Your task to perform on an android device: Search for vegetarian restaurants on Maps Image 0: 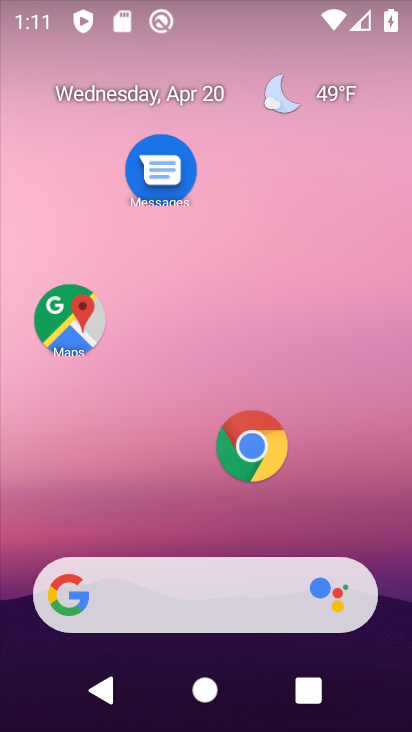
Step 0: click (180, 51)
Your task to perform on an android device: Search for vegetarian restaurants on Maps Image 1: 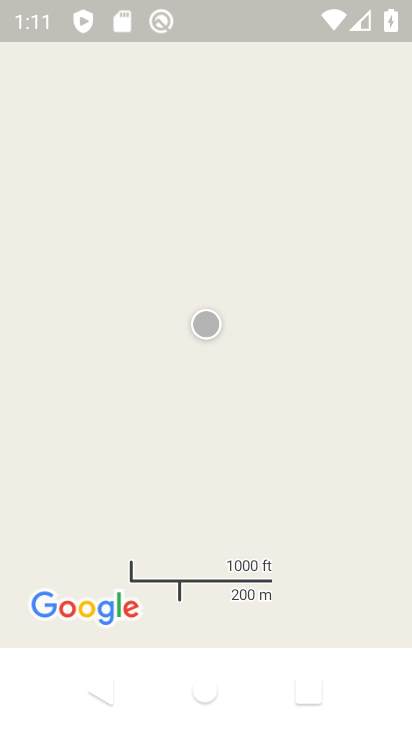
Step 1: press home button
Your task to perform on an android device: Search for vegetarian restaurants on Maps Image 2: 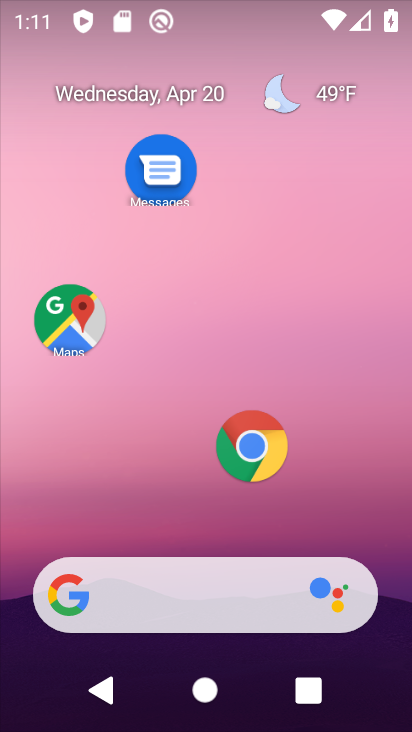
Step 2: click (66, 313)
Your task to perform on an android device: Search for vegetarian restaurants on Maps Image 3: 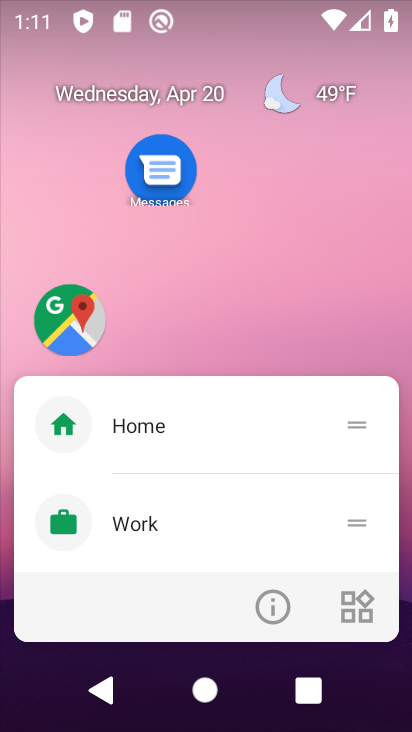
Step 3: click (70, 311)
Your task to perform on an android device: Search for vegetarian restaurants on Maps Image 4: 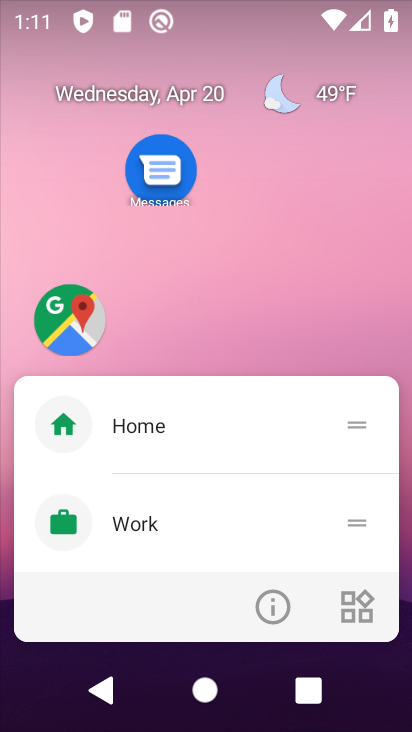
Step 4: click (70, 311)
Your task to perform on an android device: Search for vegetarian restaurants on Maps Image 5: 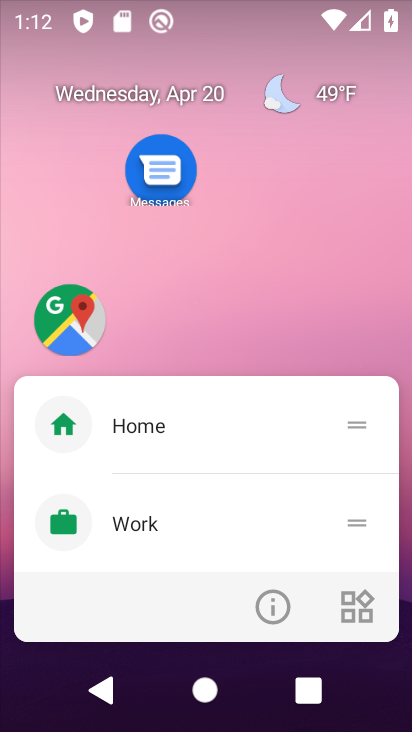
Step 5: click (158, 309)
Your task to perform on an android device: Search for vegetarian restaurants on Maps Image 6: 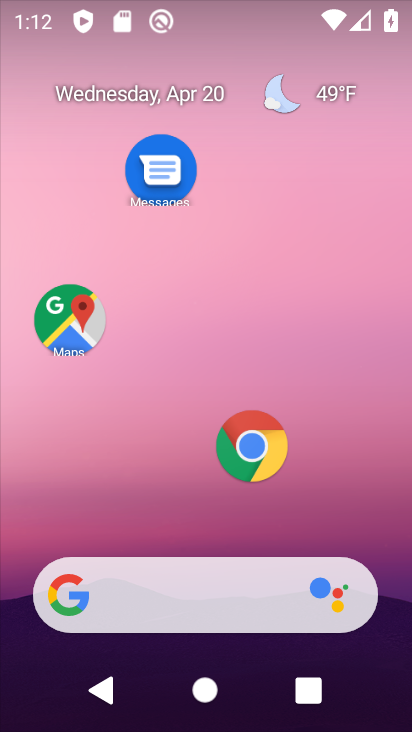
Step 6: click (69, 312)
Your task to perform on an android device: Search for vegetarian restaurants on Maps Image 7: 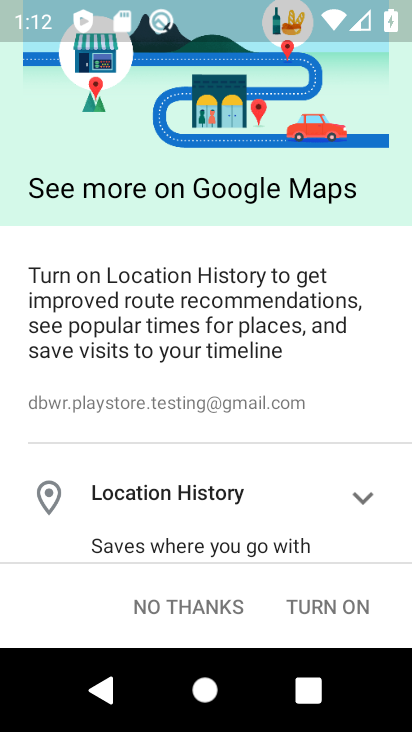
Step 7: click (222, 605)
Your task to perform on an android device: Search for vegetarian restaurants on Maps Image 8: 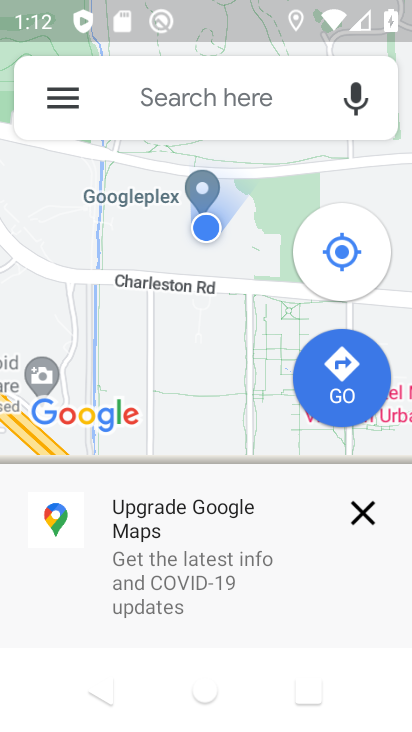
Step 8: click (163, 87)
Your task to perform on an android device: Search for vegetarian restaurants on Maps Image 9: 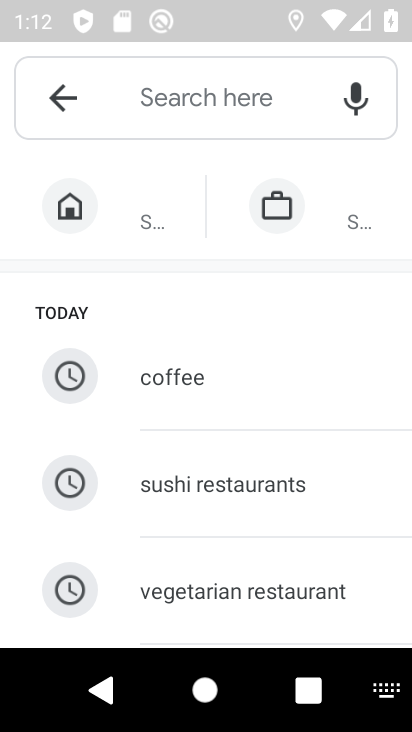
Step 9: click (234, 608)
Your task to perform on an android device: Search for vegetarian restaurants on Maps Image 10: 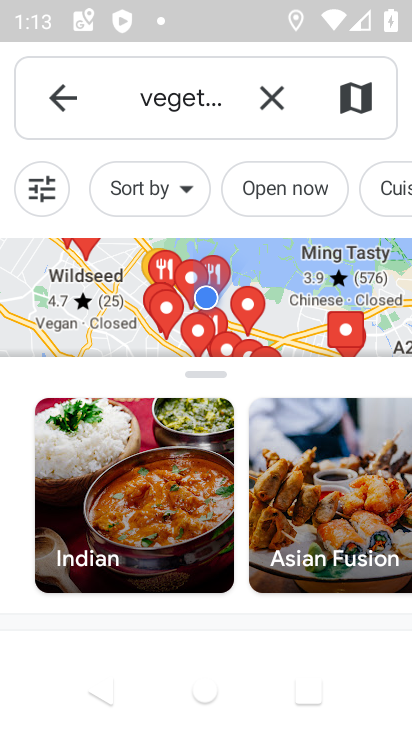
Step 10: task complete